Your task to perform on an android device: toggle airplane mode Image 0: 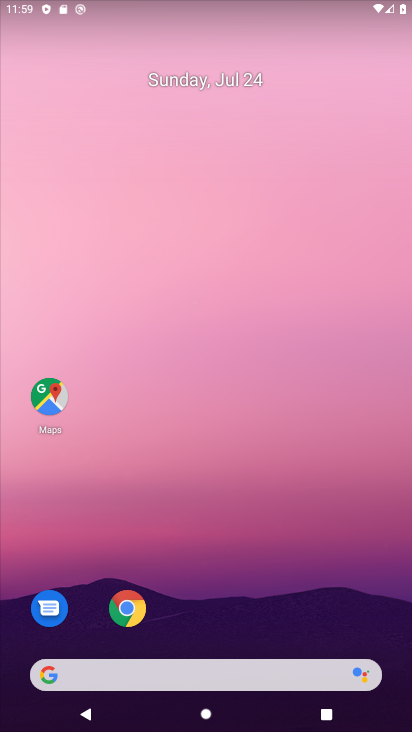
Step 0: drag from (224, 615) to (211, 156)
Your task to perform on an android device: toggle airplane mode Image 1: 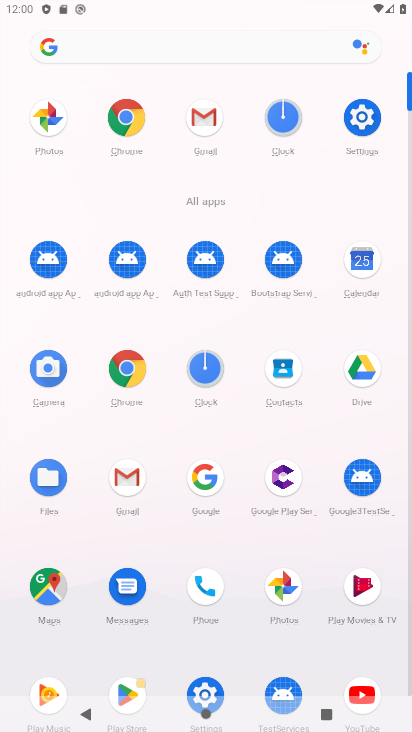
Step 1: click (362, 117)
Your task to perform on an android device: toggle airplane mode Image 2: 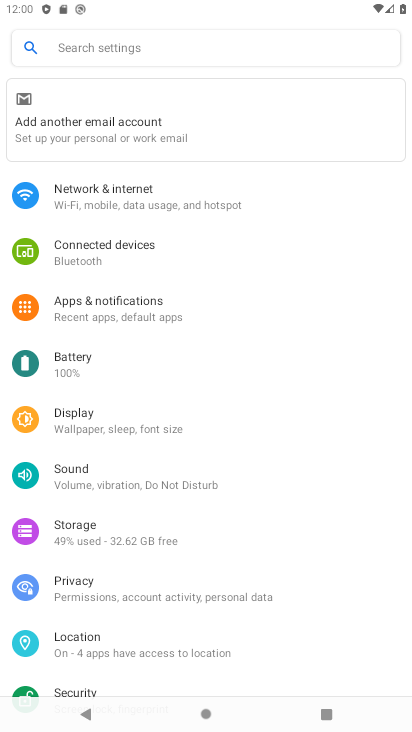
Step 2: click (133, 206)
Your task to perform on an android device: toggle airplane mode Image 3: 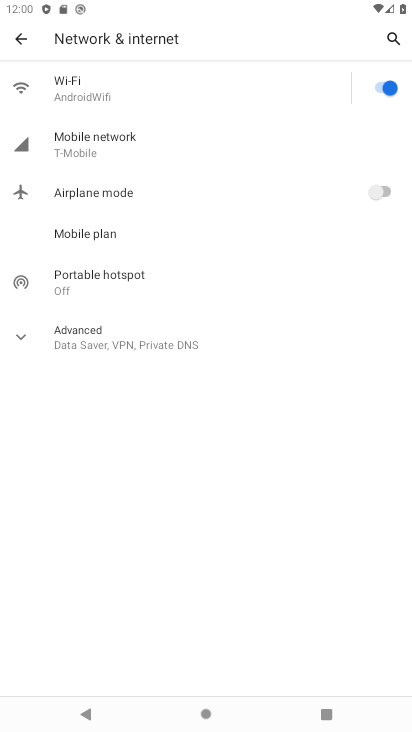
Step 3: click (375, 197)
Your task to perform on an android device: toggle airplane mode Image 4: 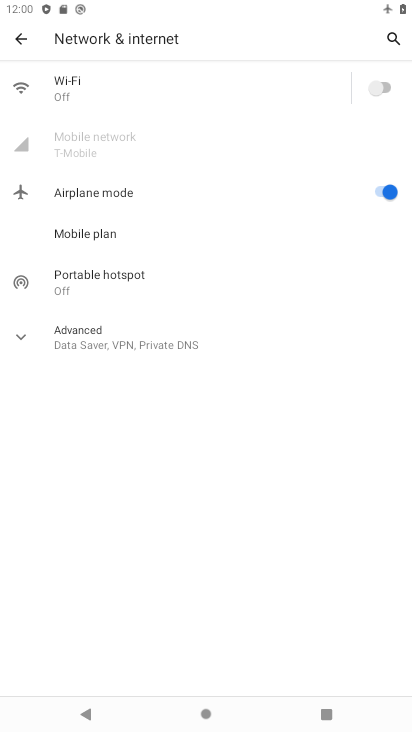
Step 4: task complete